Your task to perform on an android device: Open Google Chrome Image 0: 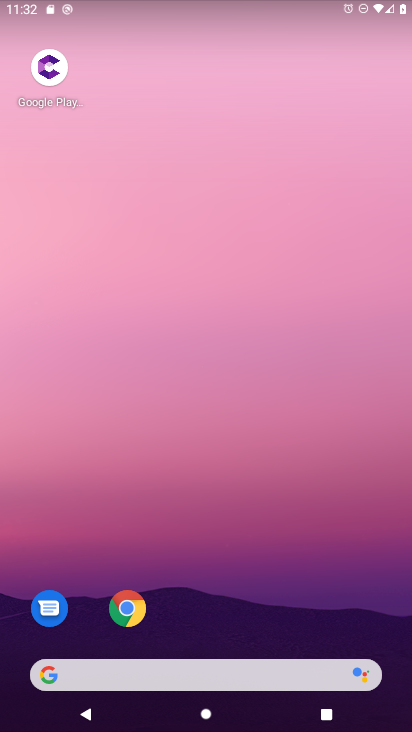
Step 0: drag from (330, 571) to (107, 101)
Your task to perform on an android device: Open Google Chrome Image 1: 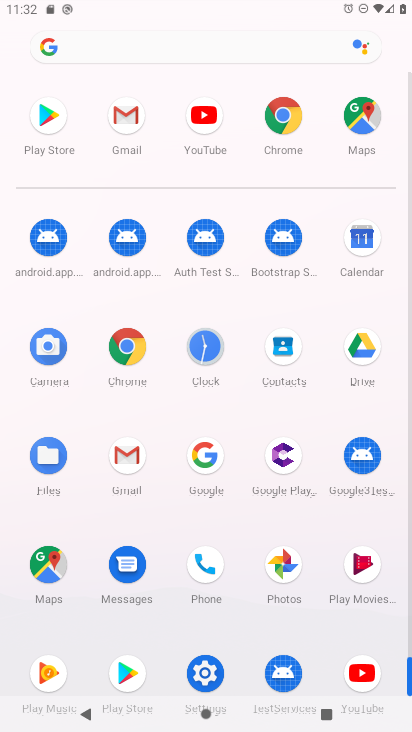
Step 1: click (275, 121)
Your task to perform on an android device: Open Google Chrome Image 2: 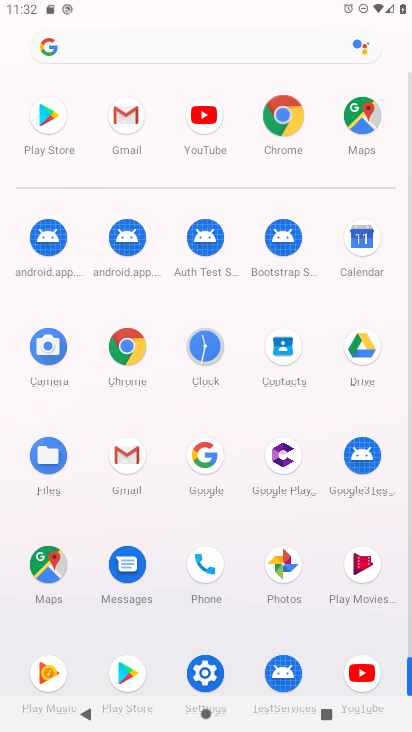
Step 2: click (275, 121)
Your task to perform on an android device: Open Google Chrome Image 3: 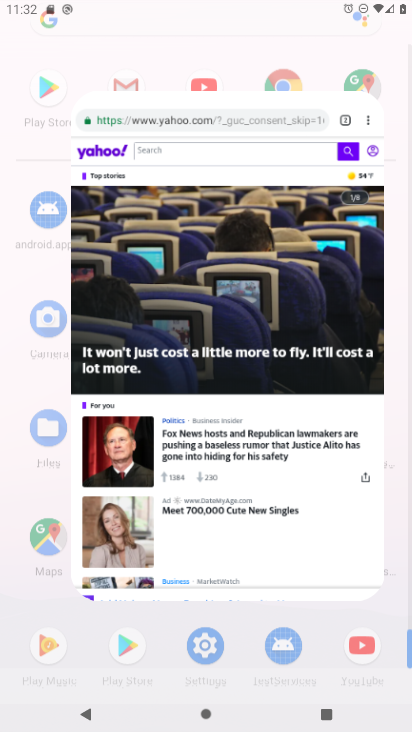
Step 3: click (278, 118)
Your task to perform on an android device: Open Google Chrome Image 4: 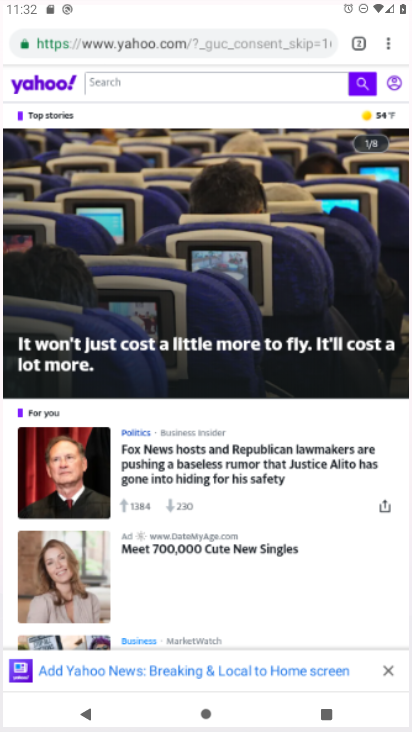
Step 4: click (280, 119)
Your task to perform on an android device: Open Google Chrome Image 5: 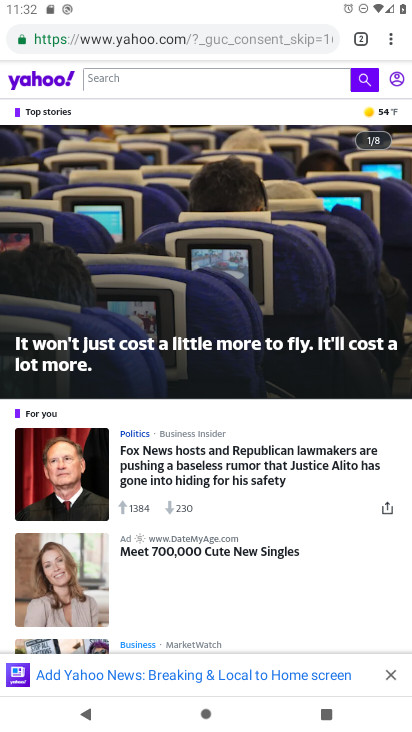
Step 5: drag from (231, 494) to (186, 48)
Your task to perform on an android device: Open Google Chrome Image 6: 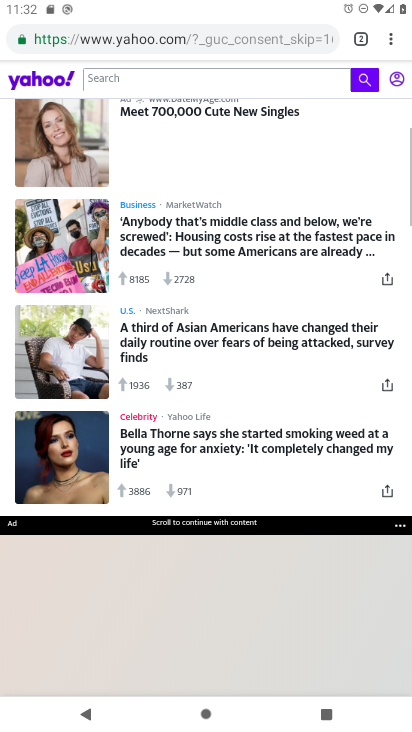
Step 6: drag from (217, 407) to (163, 129)
Your task to perform on an android device: Open Google Chrome Image 7: 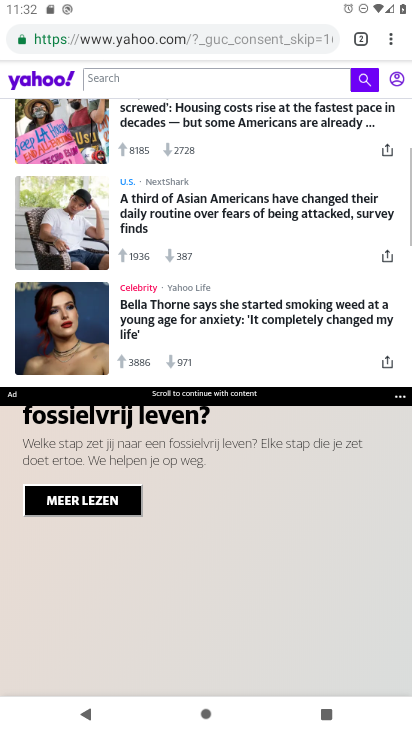
Step 7: drag from (153, 511) to (238, 500)
Your task to perform on an android device: Open Google Chrome Image 8: 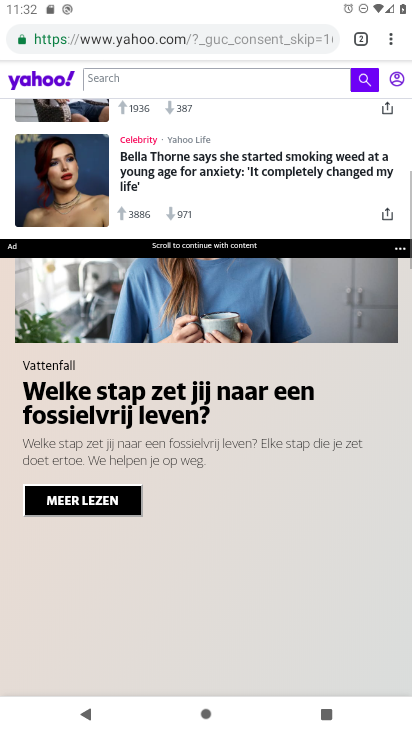
Step 8: drag from (211, 339) to (216, 557)
Your task to perform on an android device: Open Google Chrome Image 9: 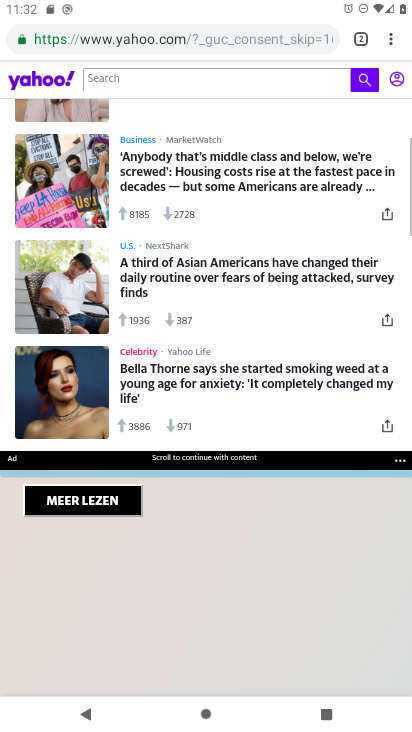
Step 9: drag from (203, 342) to (230, 509)
Your task to perform on an android device: Open Google Chrome Image 10: 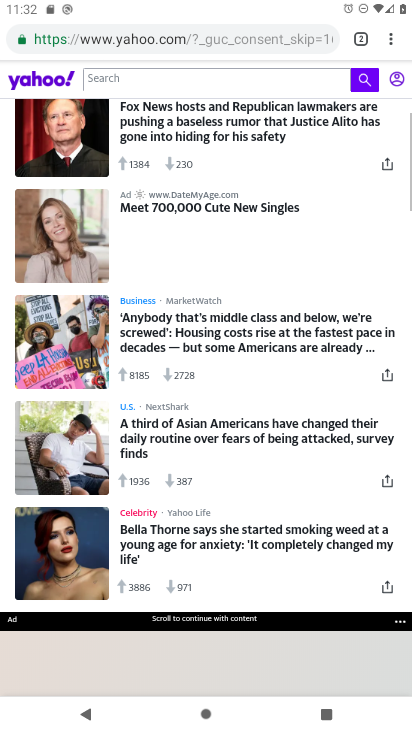
Step 10: drag from (172, 368) to (235, 549)
Your task to perform on an android device: Open Google Chrome Image 11: 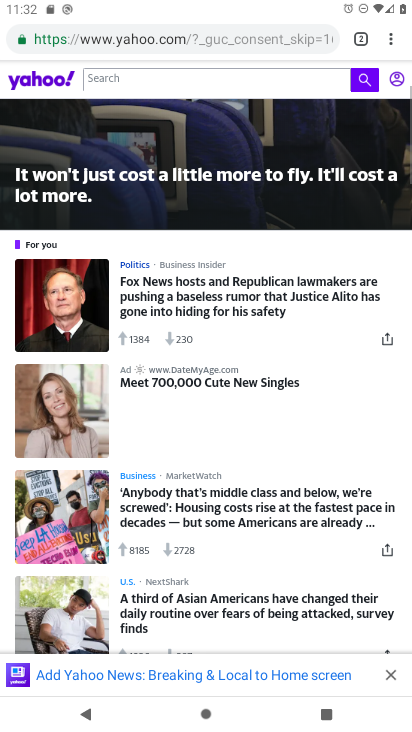
Step 11: click (216, 528)
Your task to perform on an android device: Open Google Chrome Image 12: 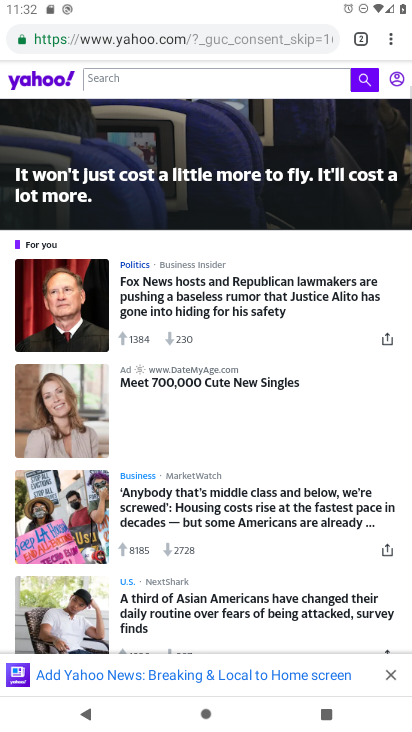
Step 12: task complete